Your task to perform on an android device: open a bookmark in the chrome app Image 0: 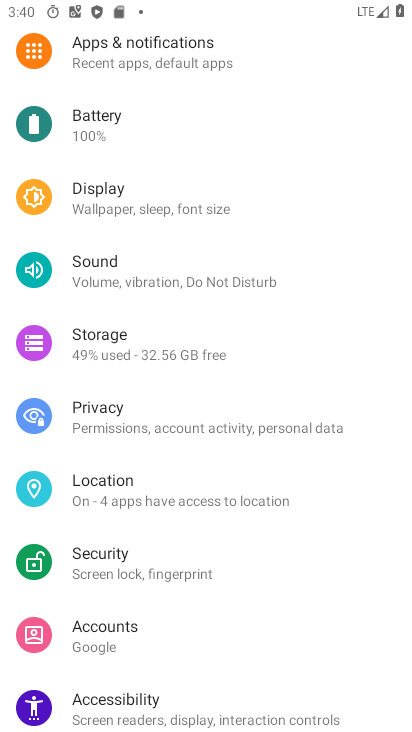
Step 0: press home button
Your task to perform on an android device: open a bookmark in the chrome app Image 1: 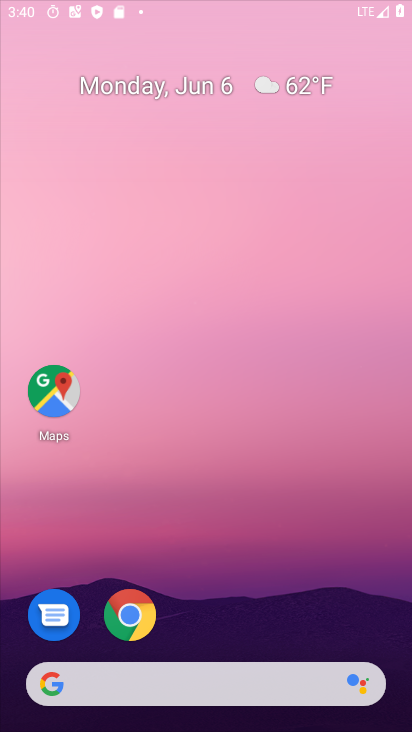
Step 1: drag from (205, 717) to (271, 87)
Your task to perform on an android device: open a bookmark in the chrome app Image 2: 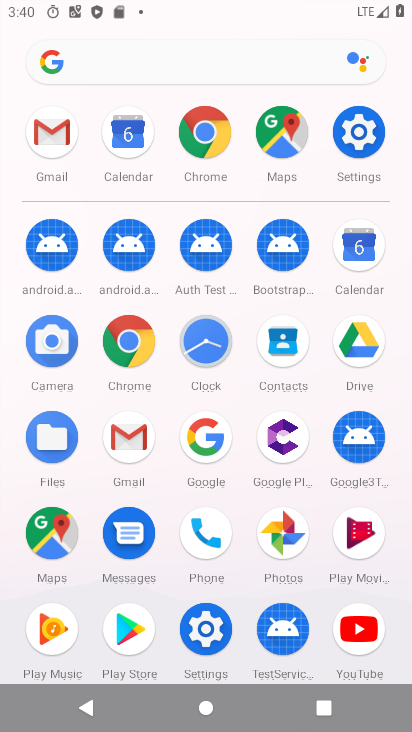
Step 2: click (133, 356)
Your task to perform on an android device: open a bookmark in the chrome app Image 3: 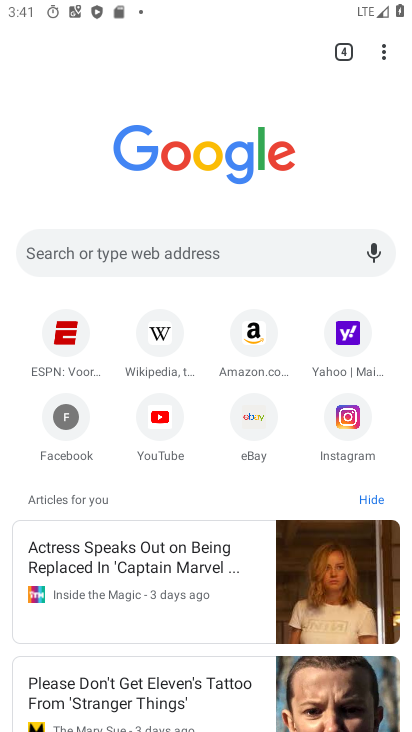
Step 3: task complete